Your task to perform on an android device: Open calendar and show me the third week of next month Image 0: 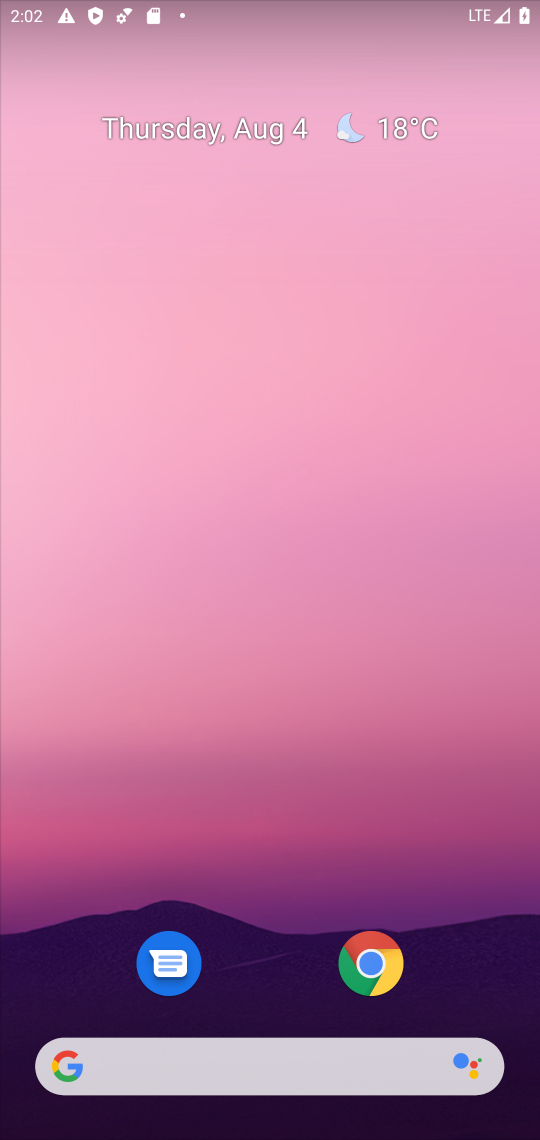
Step 0: drag from (267, 1053) to (304, 380)
Your task to perform on an android device: Open calendar and show me the third week of next month Image 1: 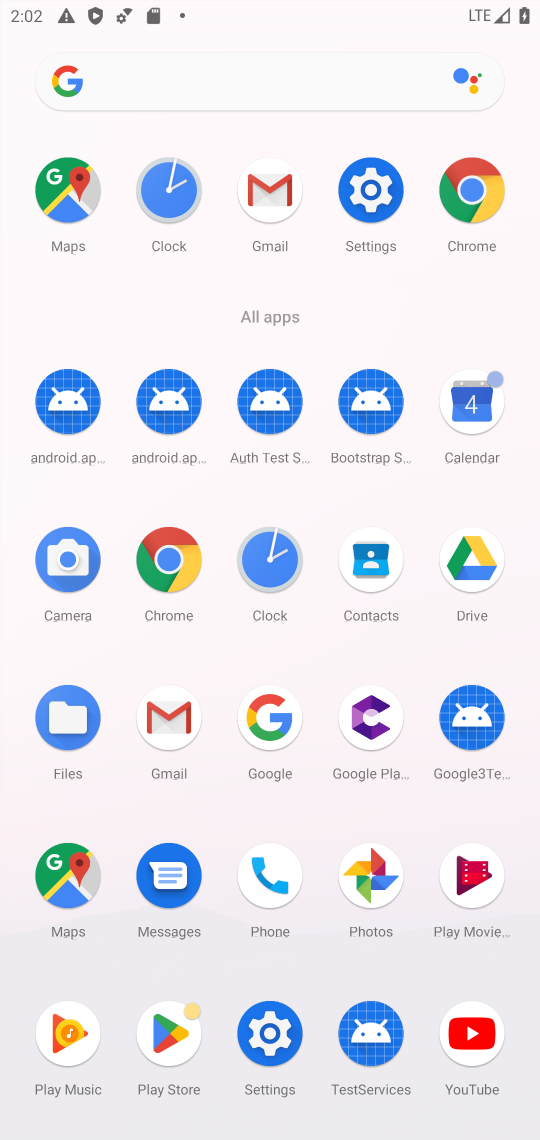
Step 1: click (474, 404)
Your task to perform on an android device: Open calendar and show me the third week of next month Image 2: 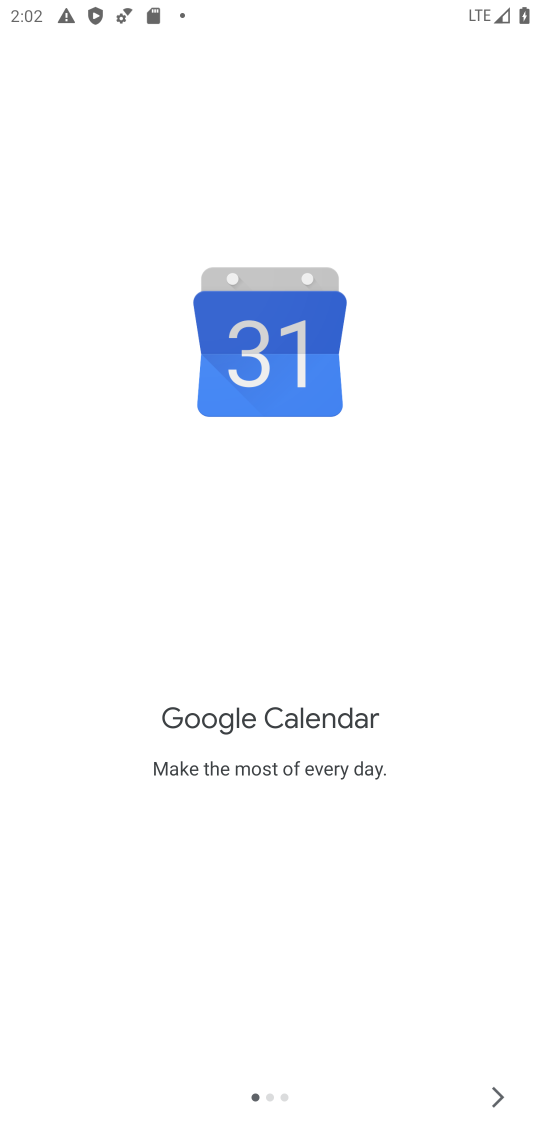
Step 2: click (503, 1101)
Your task to perform on an android device: Open calendar and show me the third week of next month Image 3: 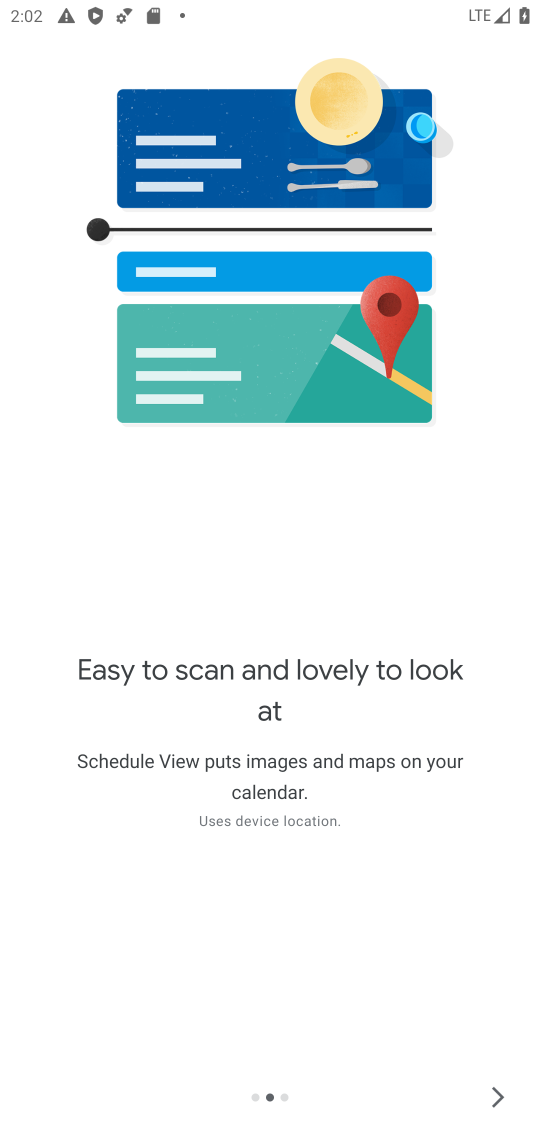
Step 3: click (503, 1101)
Your task to perform on an android device: Open calendar and show me the third week of next month Image 4: 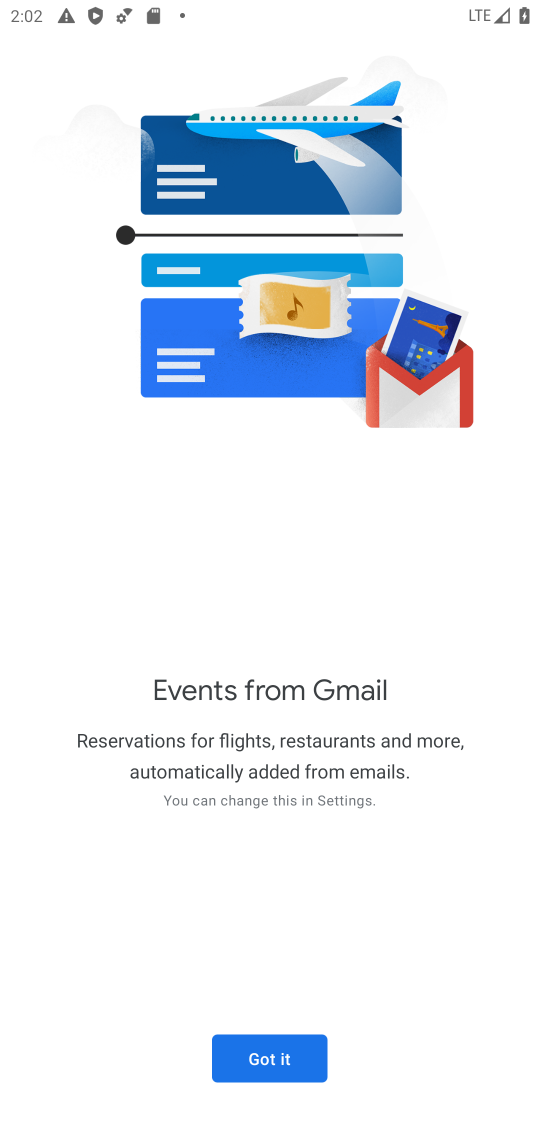
Step 4: click (284, 1072)
Your task to perform on an android device: Open calendar and show me the third week of next month Image 5: 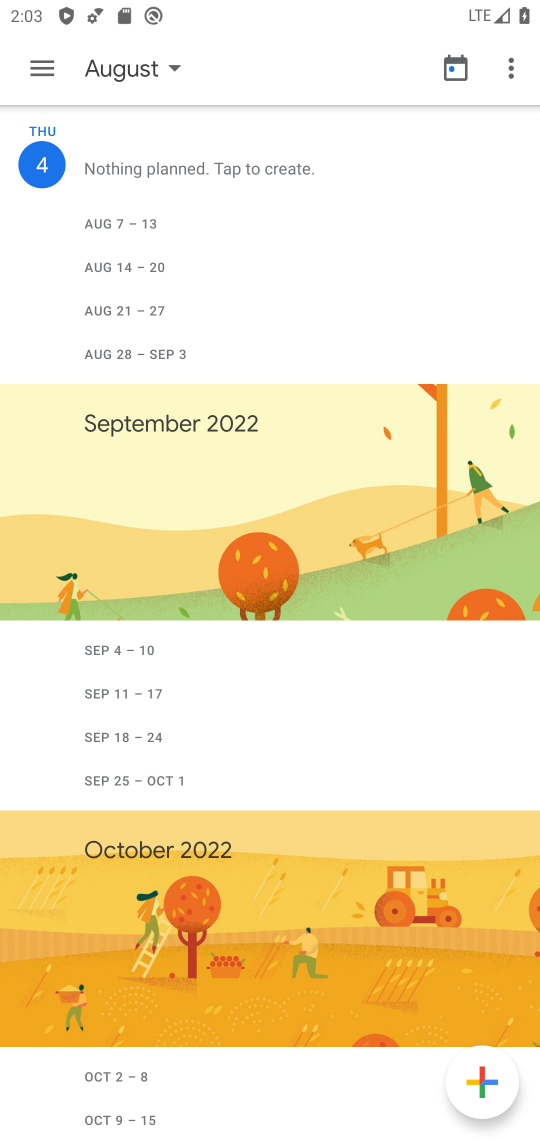
Step 5: click (45, 68)
Your task to perform on an android device: Open calendar and show me the third week of next month Image 6: 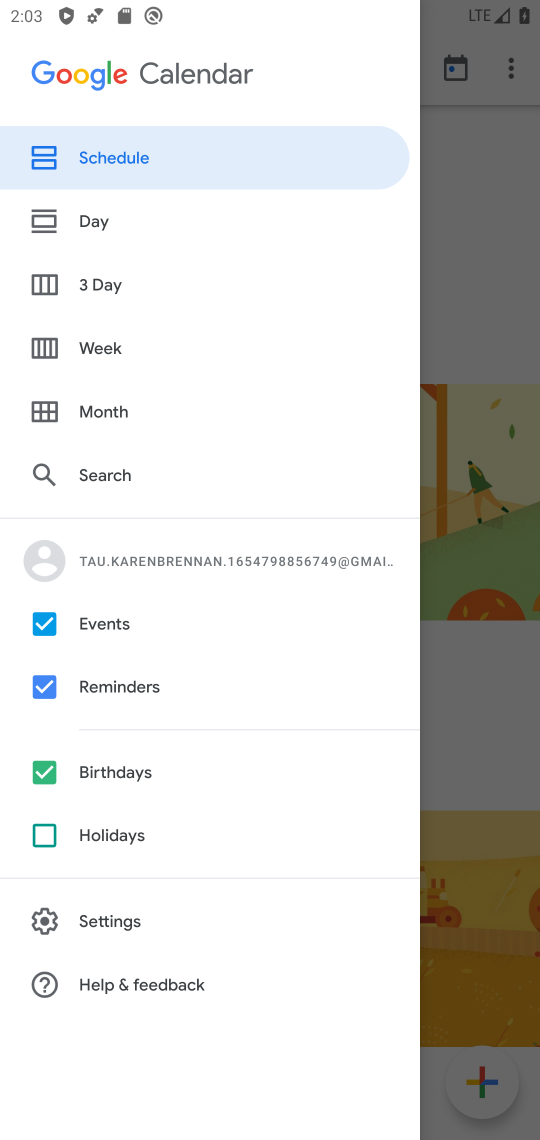
Step 6: click (103, 415)
Your task to perform on an android device: Open calendar and show me the third week of next month Image 7: 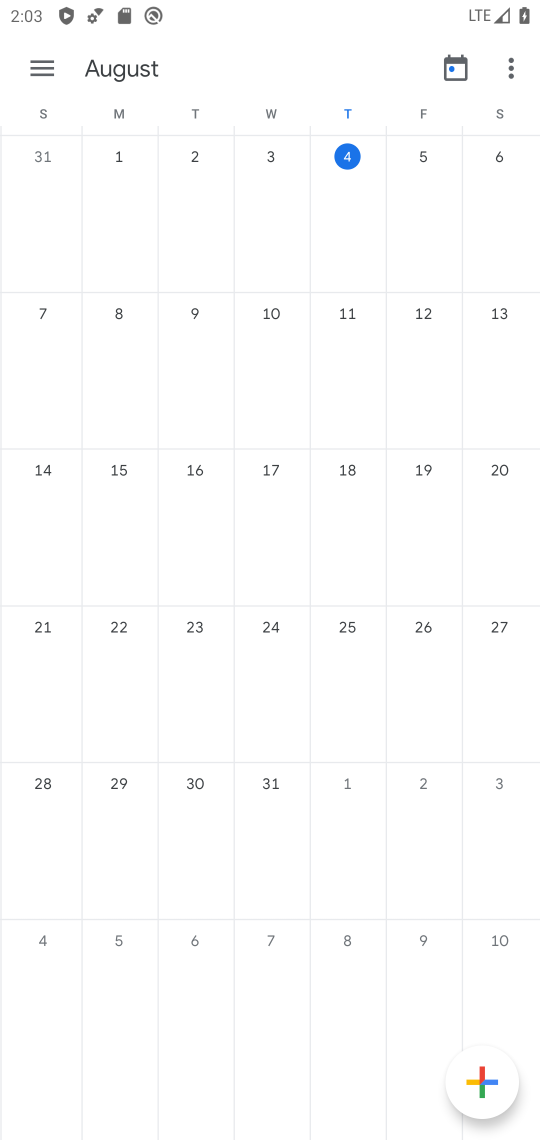
Step 7: task complete